Your task to perform on an android device: Search for "acer predator" on newegg.com, select the first entry, add it to the cart, then select checkout. Image 0: 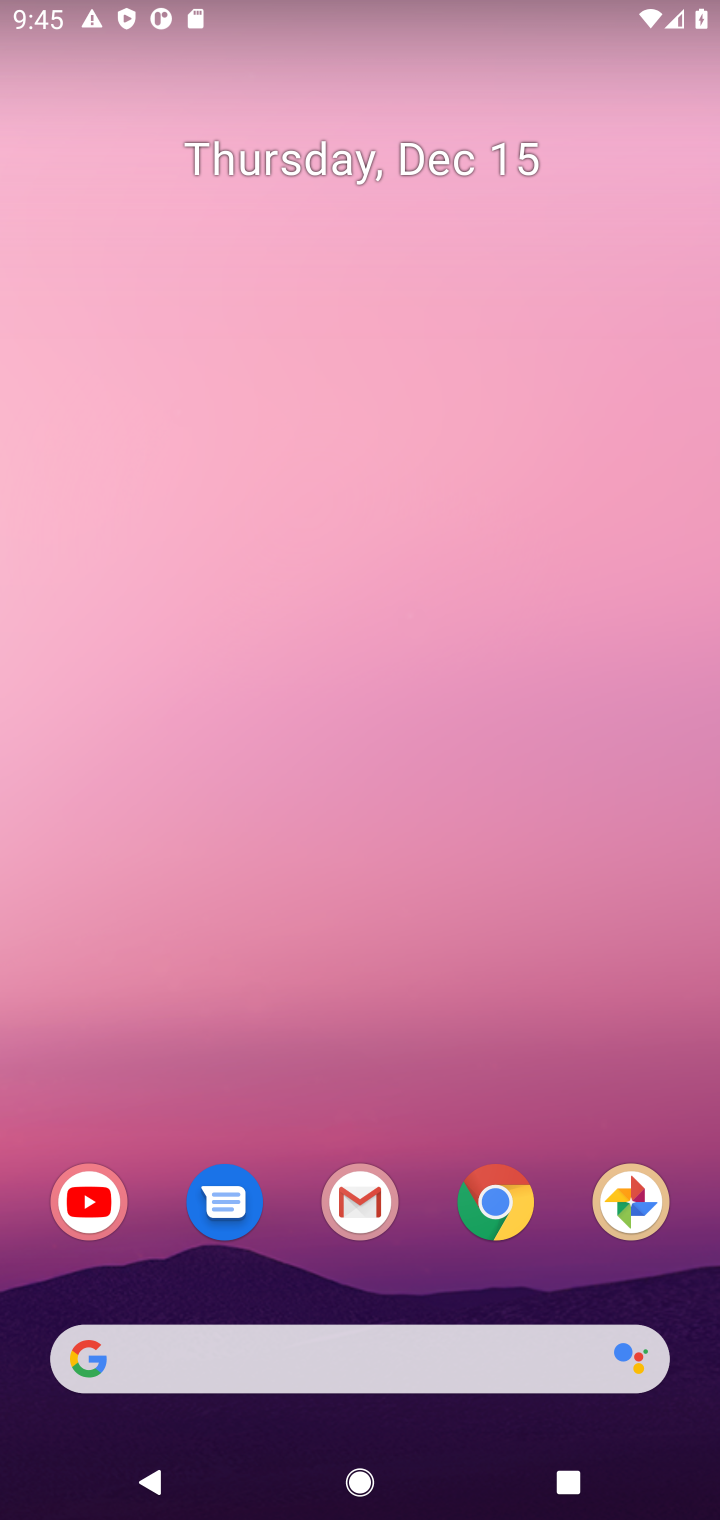
Step 0: click (484, 1199)
Your task to perform on an android device: Search for "acer predator" on newegg.com, select the first entry, add it to the cart, then select checkout. Image 1: 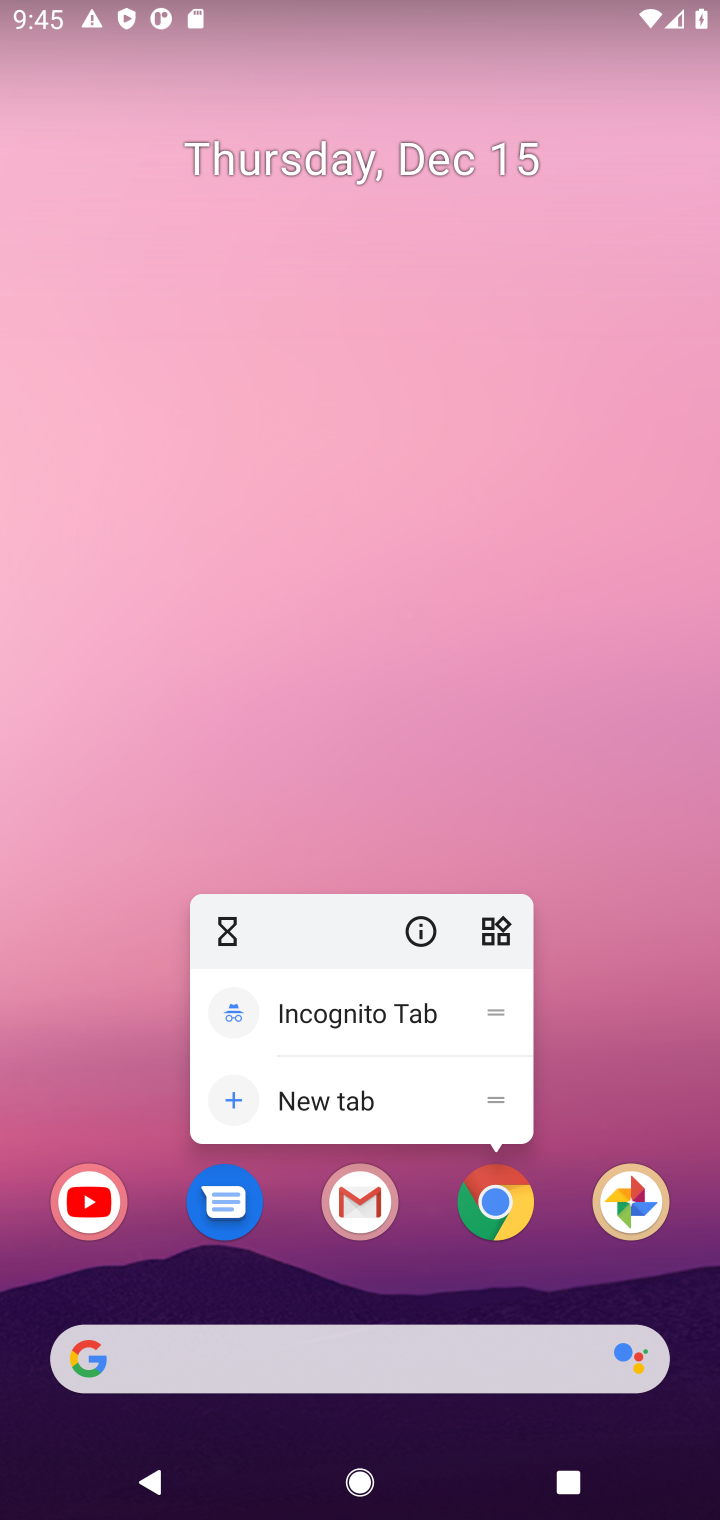
Step 1: click (503, 1214)
Your task to perform on an android device: Search for "acer predator" on newegg.com, select the first entry, add it to the cart, then select checkout. Image 2: 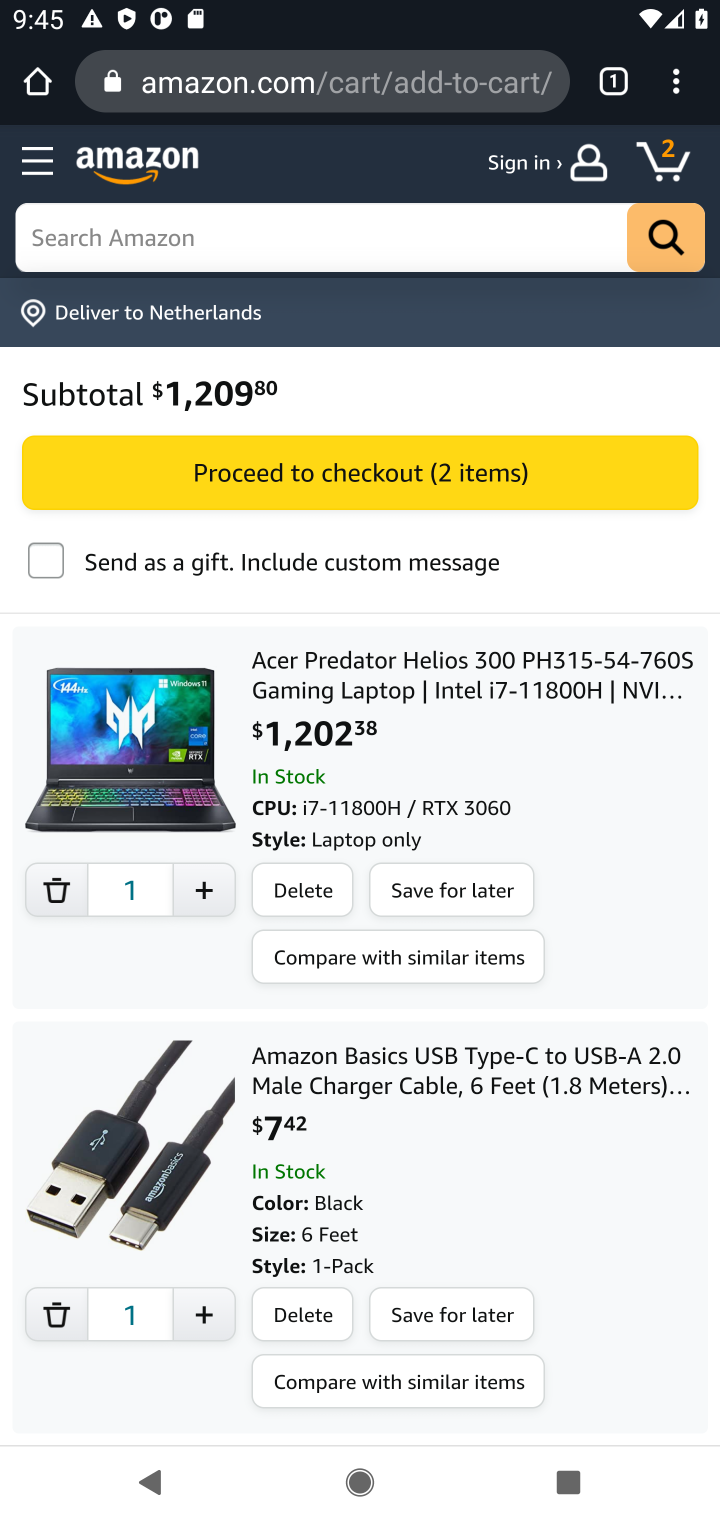
Step 2: click (288, 96)
Your task to perform on an android device: Search for "acer predator" on newegg.com, select the first entry, add it to the cart, then select checkout. Image 3: 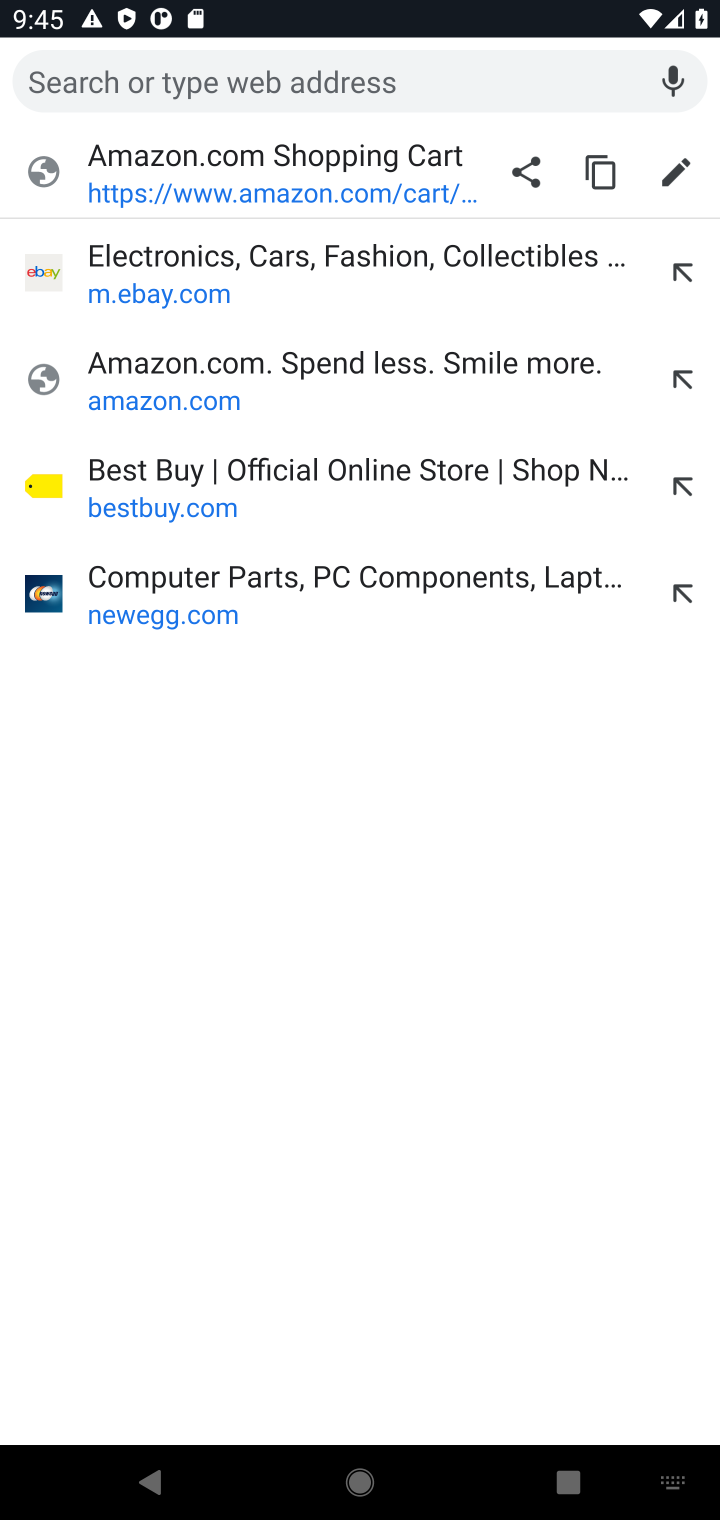
Step 3: click (131, 582)
Your task to perform on an android device: Search for "acer predator" on newegg.com, select the first entry, add it to the cart, then select checkout. Image 4: 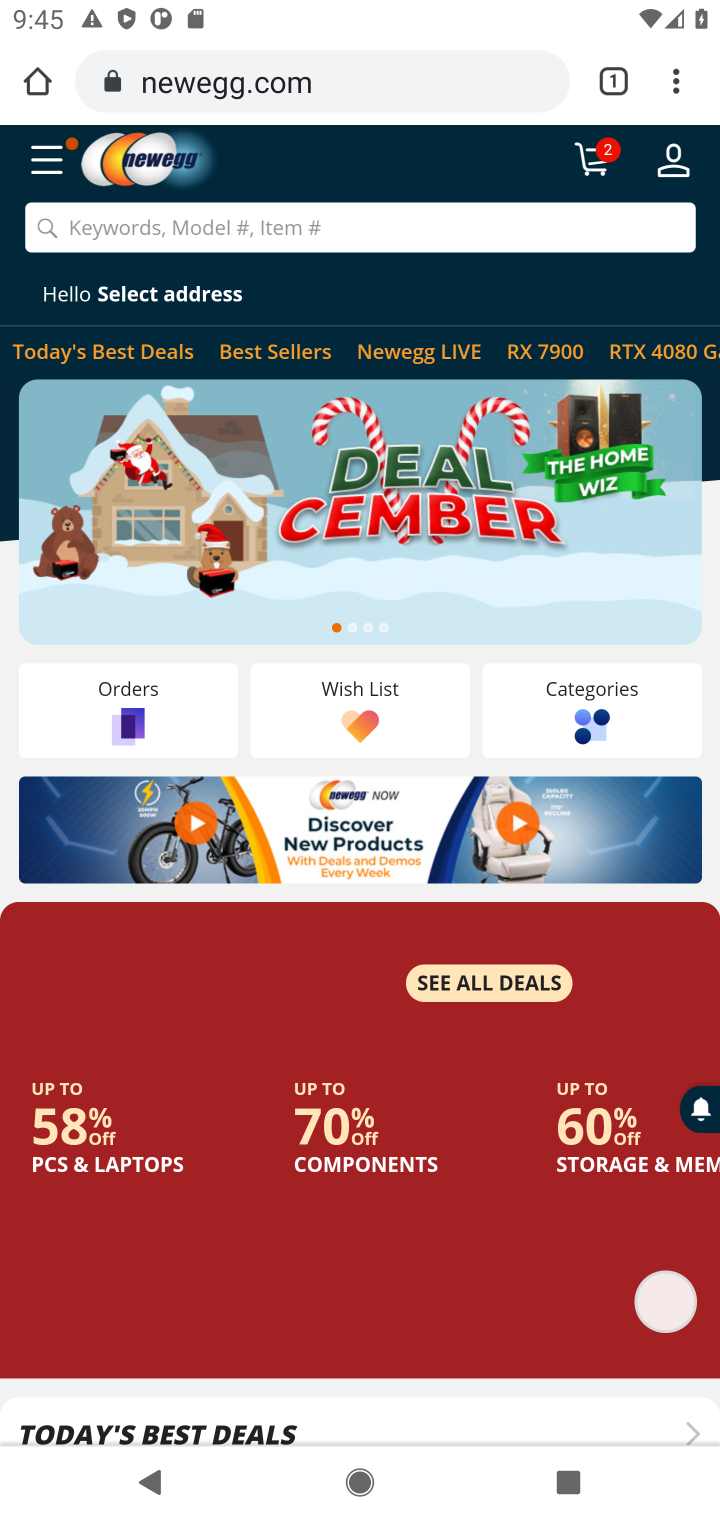
Step 4: click (171, 212)
Your task to perform on an android device: Search for "acer predator" on newegg.com, select the first entry, add it to the cart, then select checkout. Image 5: 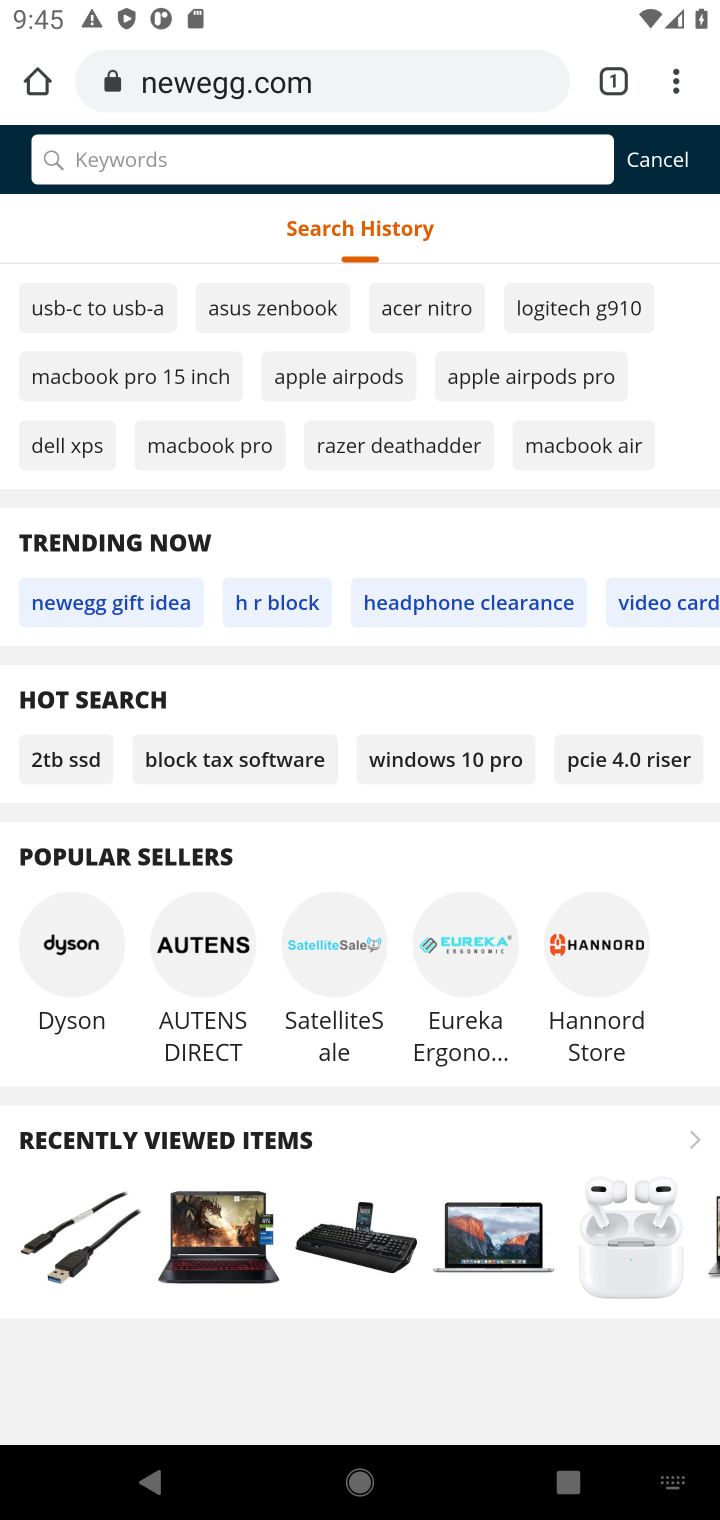
Step 5: type "acer predator"
Your task to perform on an android device: Search for "acer predator" on newegg.com, select the first entry, add it to the cart, then select checkout. Image 6: 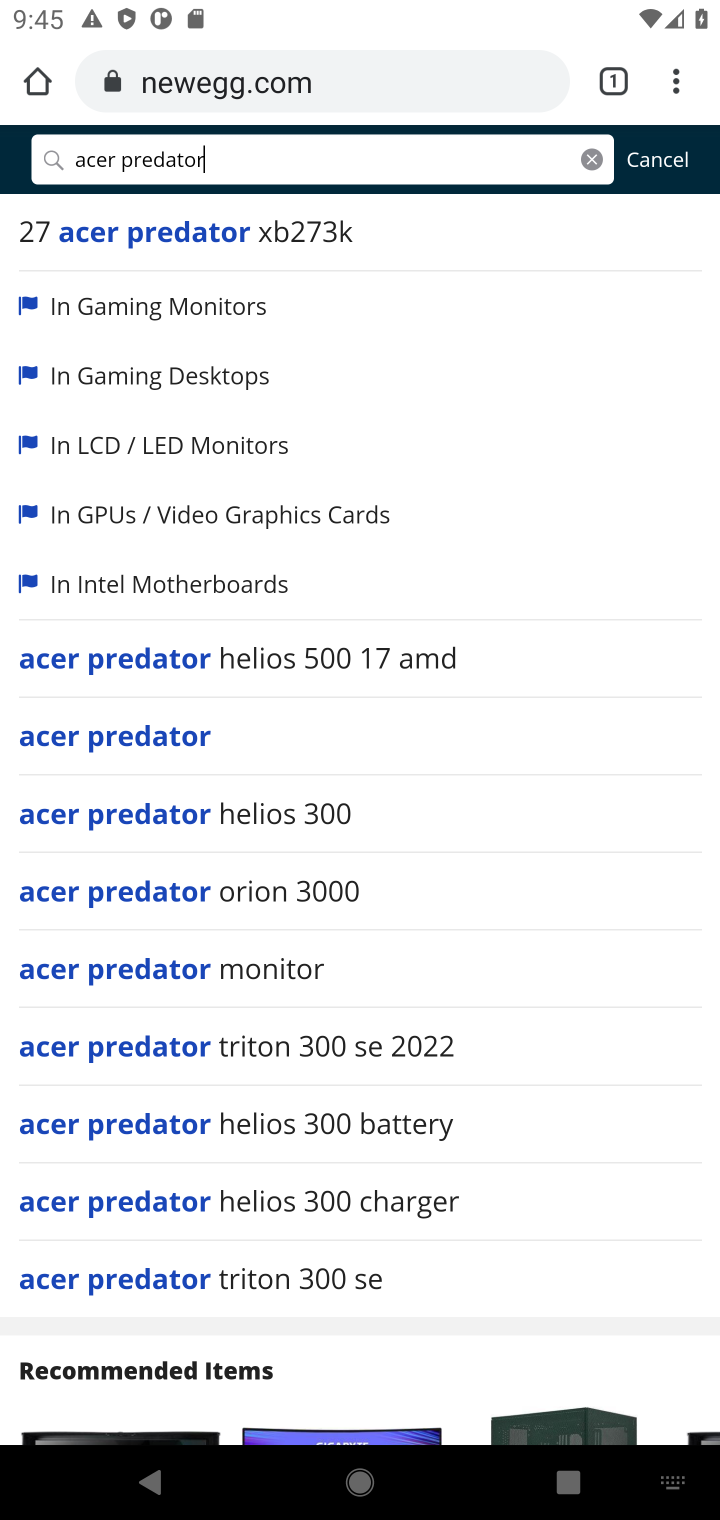
Step 6: click (133, 723)
Your task to perform on an android device: Search for "acer predator" on newegg.com, select the first entry, add it to the cart, then select checkout. Image 7: 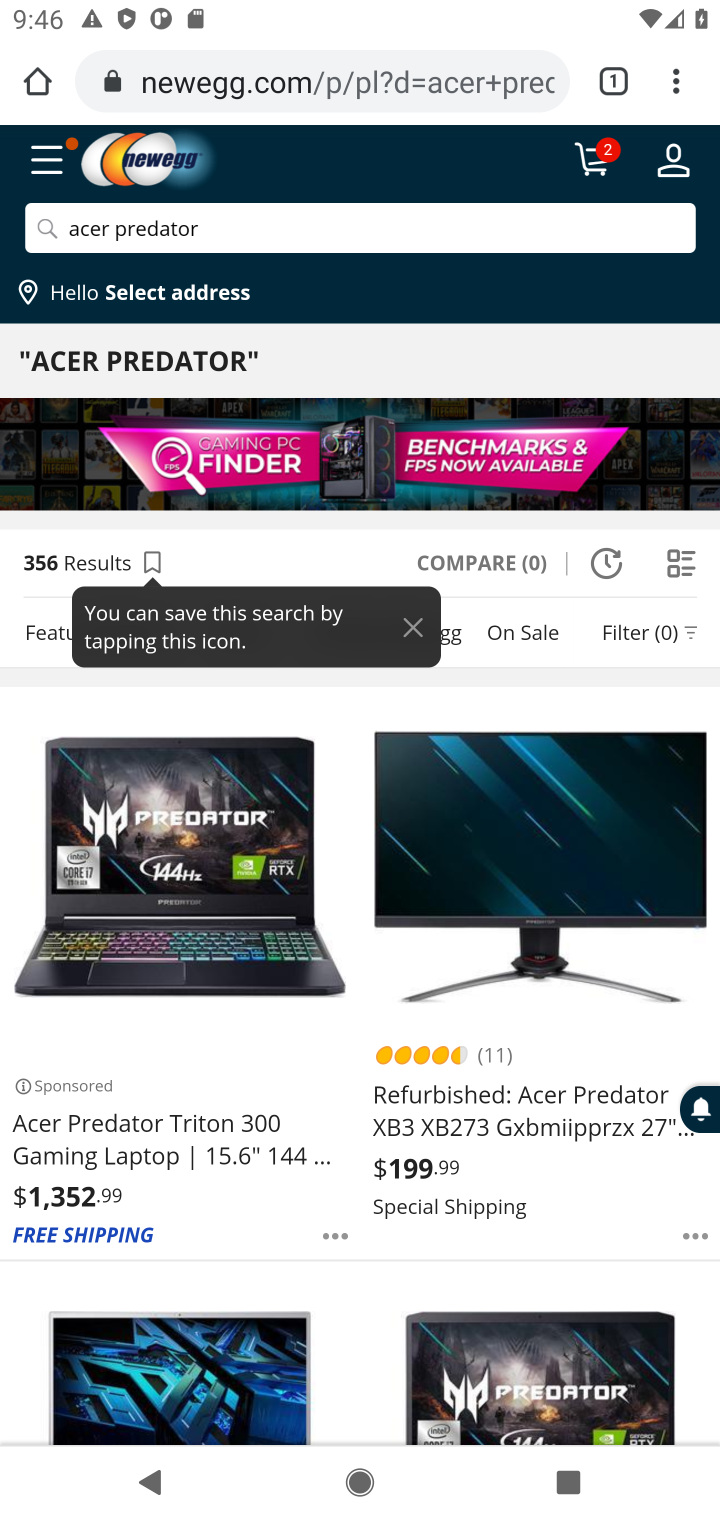
Step 7: click (168, 1137)
Your task to perform on an android device: Search for "acer predator" on newegg.com, select the first entry, add it to the cart, then select checkout. Image 8: 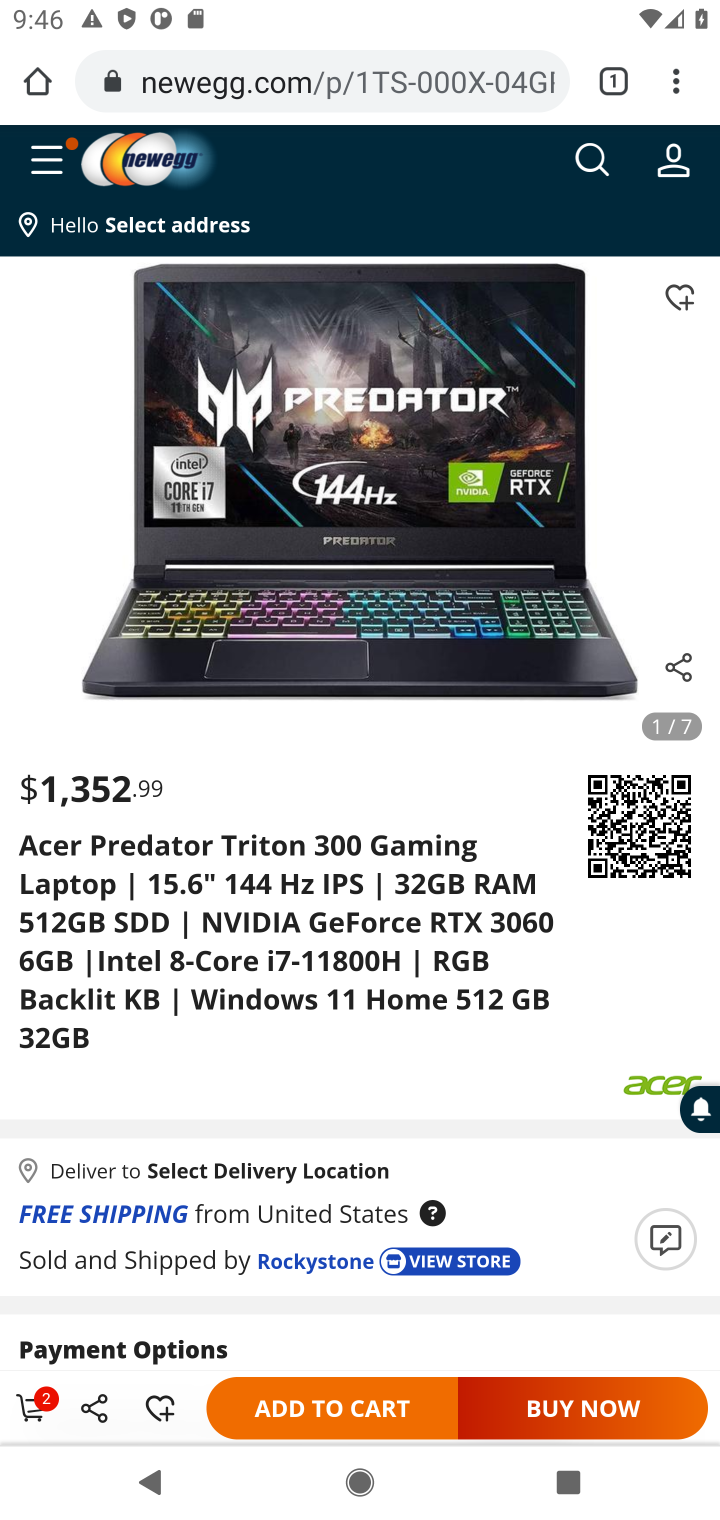
Step 8: click (292, 1409)
Your task to perform on an android device: Search for "acer predator" on newegg.com, select the first entry, add it to the cart, then select checkout. Image 9: 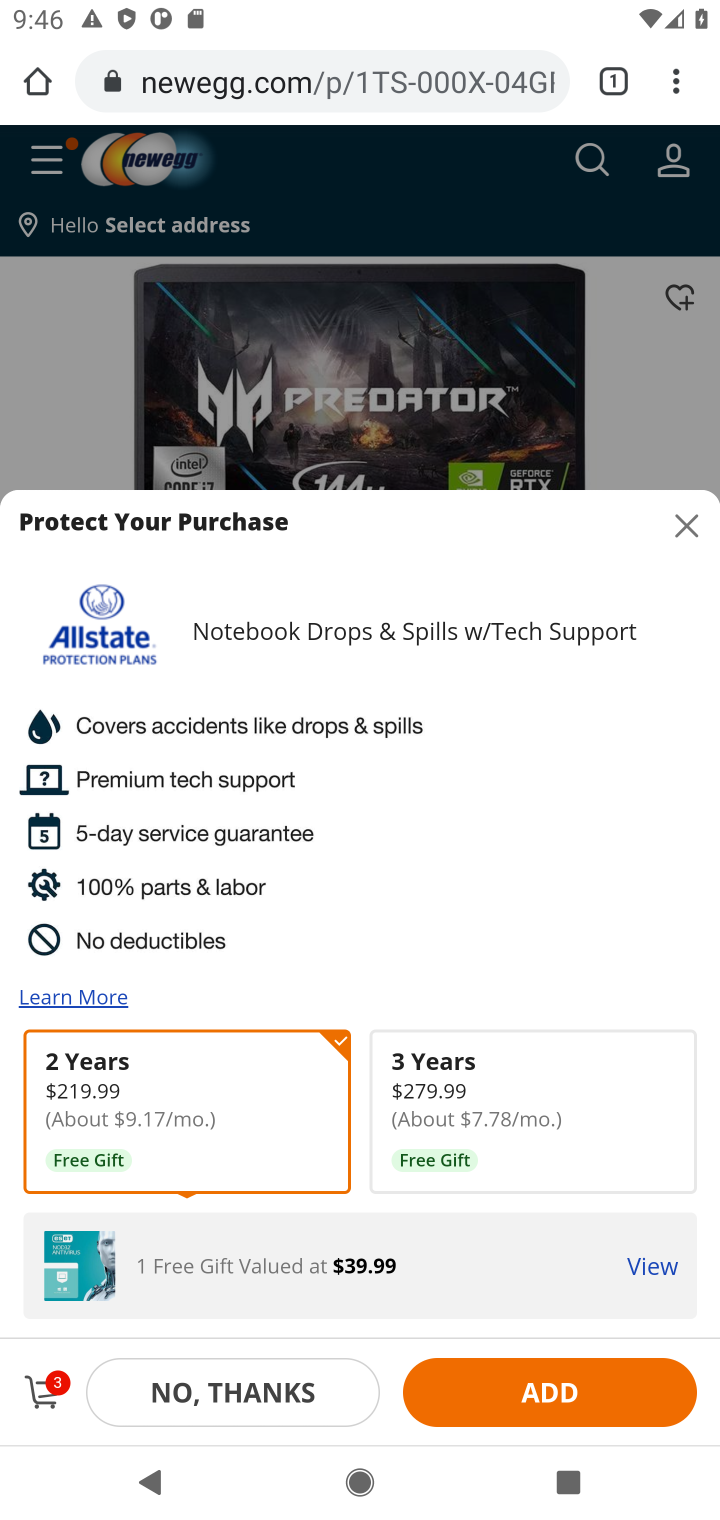
Step 9: click (50, 1391)
Your task to perform on an android device: Search for "acer predator" on newegg.com, select the first entry, add it to the cart, then select checkout. Image 10: 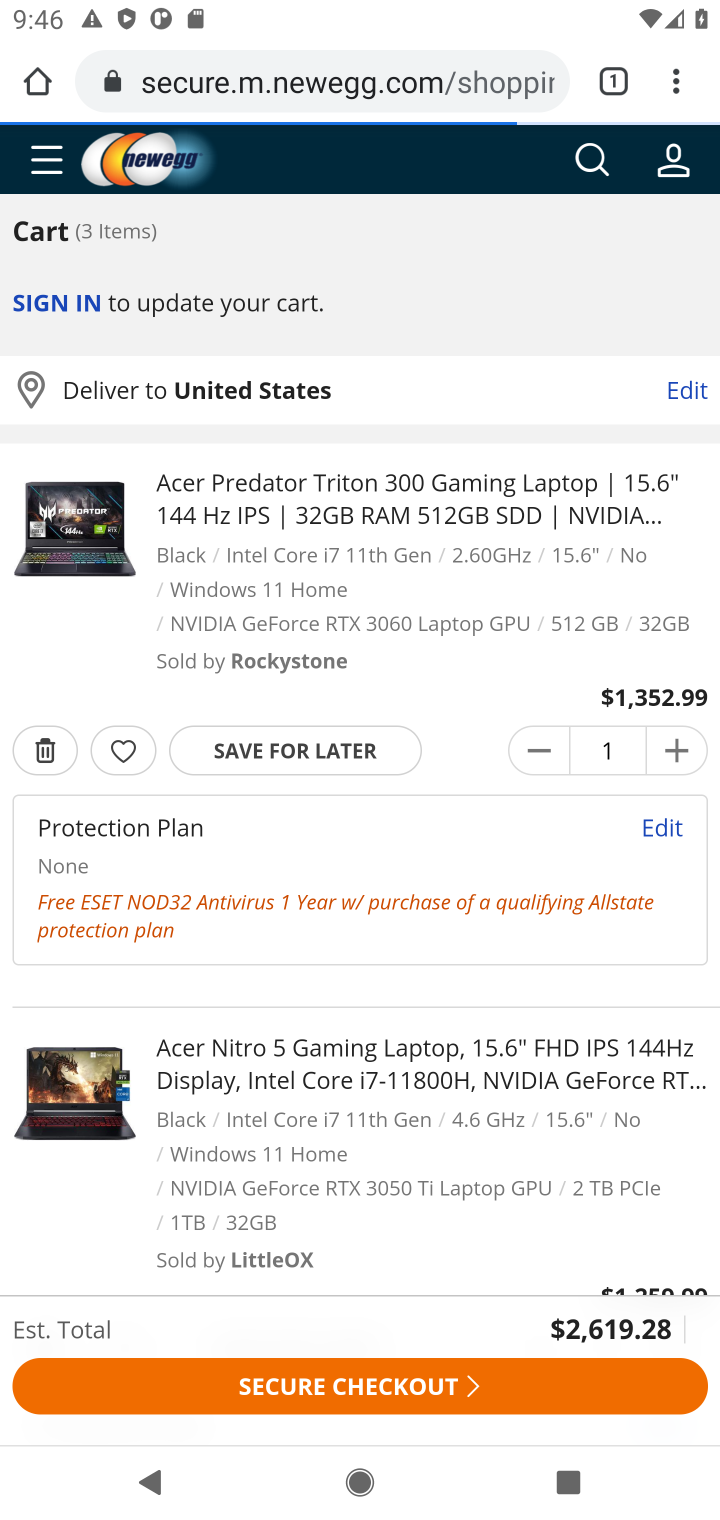
Step 10: click (147, 1385)
Your task to perform on an android device: Search for "acer predator" on newegg.com, select the first entry, add it to the cart, then select checkout. Image 11: 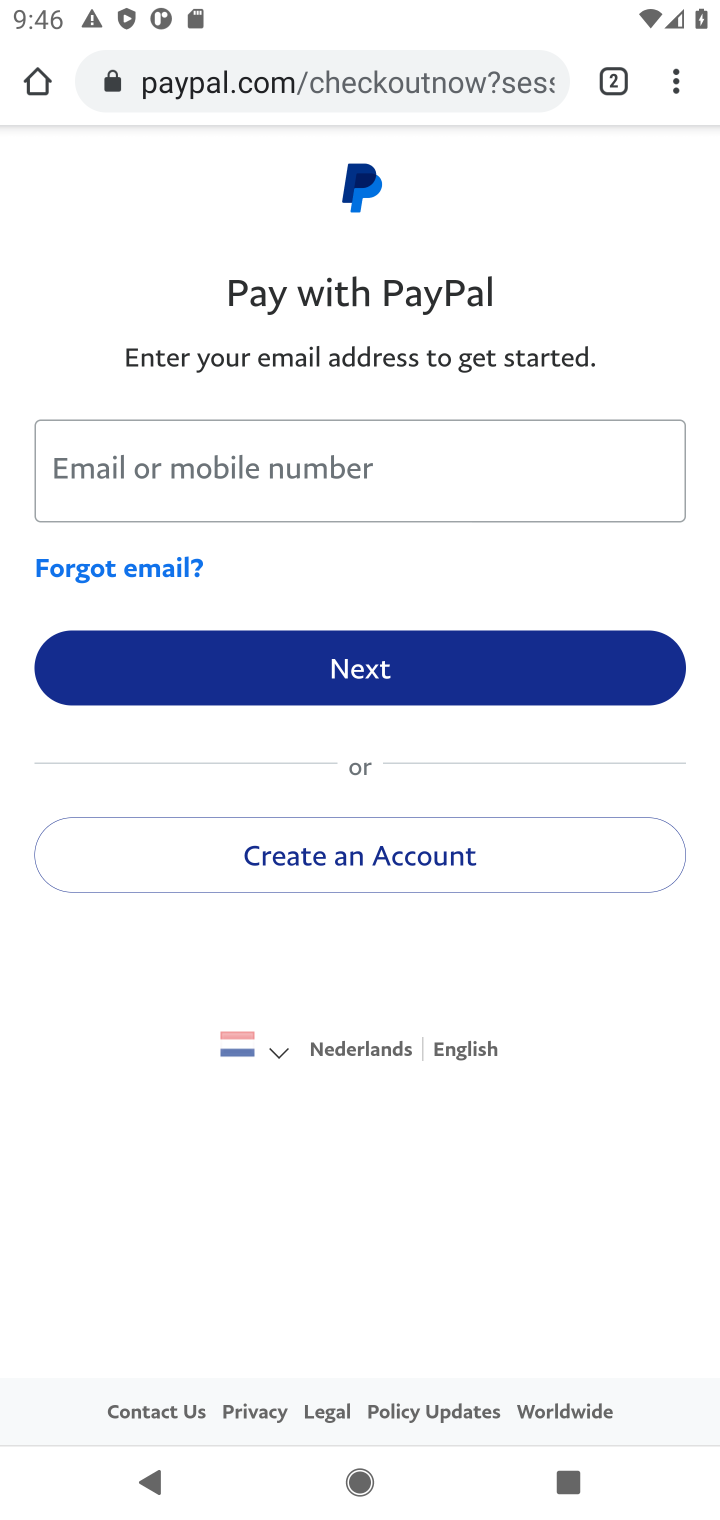
Step 11: task complete